Your task to perform on an android device: toggle pop-ups in chrome Image 0: 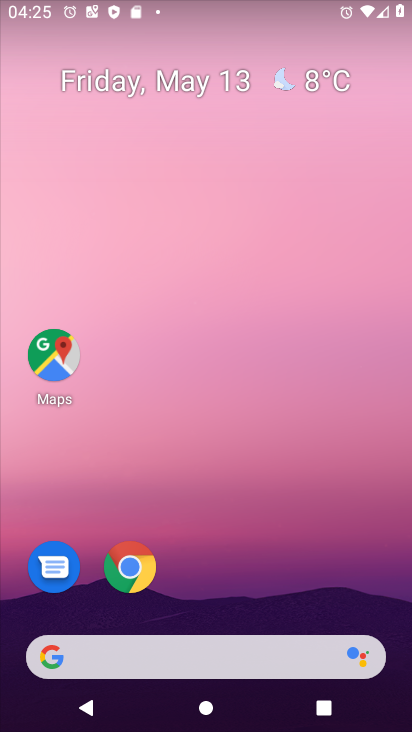
Step 0: click (134, 568)
Your task to perform on an android device: toggle pop-ups in chrome Image 1: 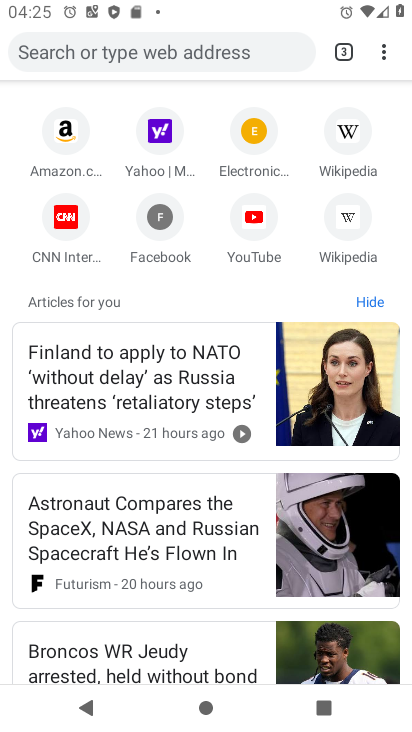
Step 1: click (383, 54)
Your task to perform on an android device: toggle pop-ups in chrome Image 2: 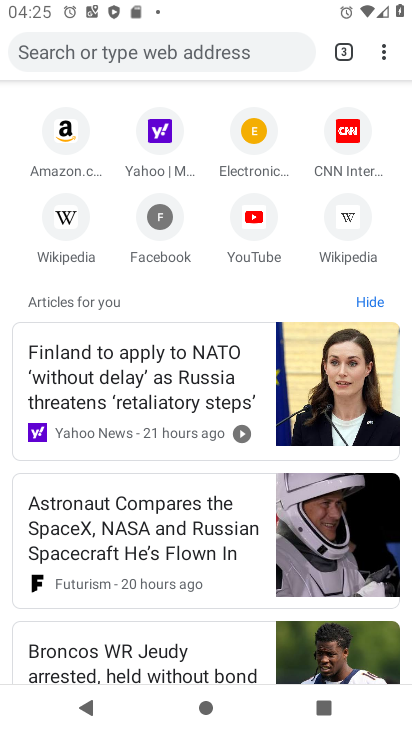
Step 2: drag from (383, 54) to (254, 430)
Your task to perform on an android device: toggle pop-ups in chrome Image 3: 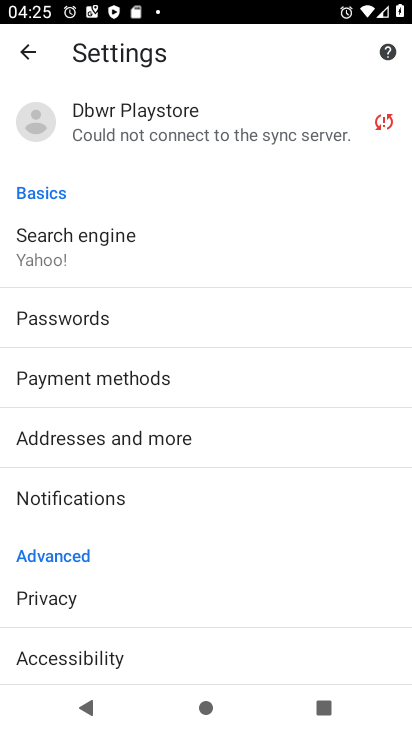
Step 3: drag from (149, 583) to (138, 313)
Your task to perform on an android device: toggle pop-ups in chrome Image 4: 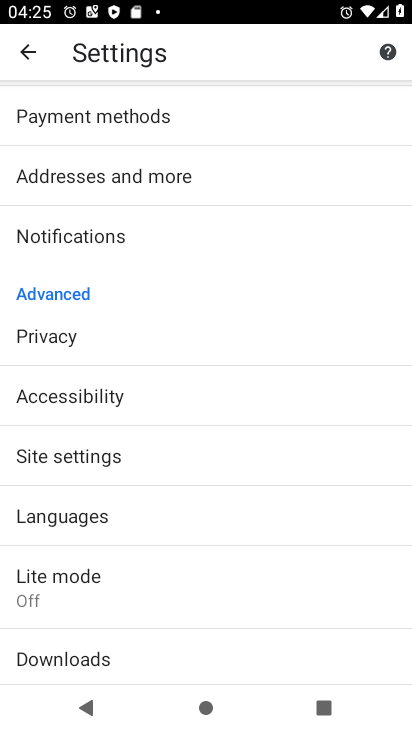
Step 4: click (70, 458)
Your task to perform on an android device: toggle pop-ups in chrome Image 5: 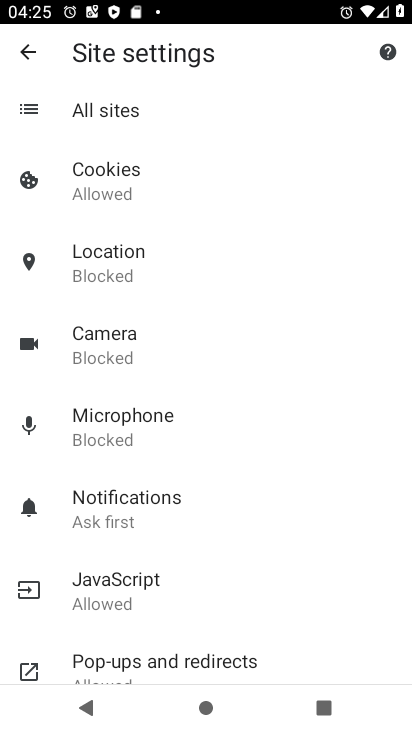
Step 5: drag from (222, 598) to (239, 502)
Your task to perform on an android device: toggle pop-ups in chrome Image 6: 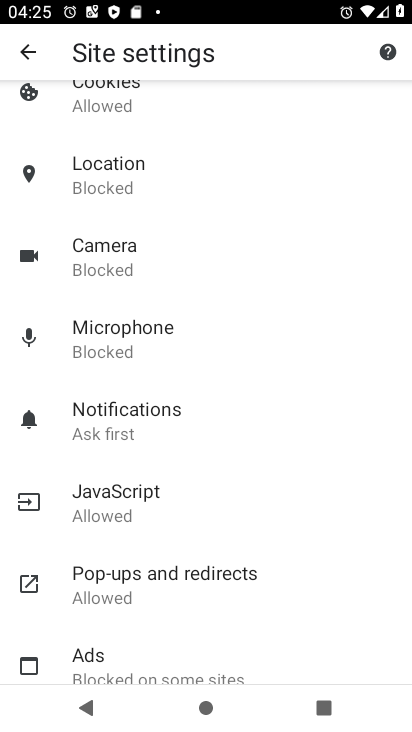
Step 6: click (138, 582)
Your task to perform on an android device: toggle pop-ups in chrome Image 7: 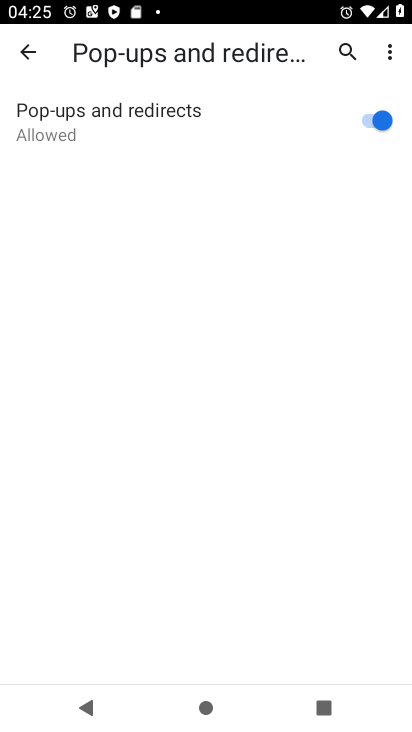
Step 7: click (398, 111)
Your task to perform on an android device: toggle pop-ups in chrome Image 8: 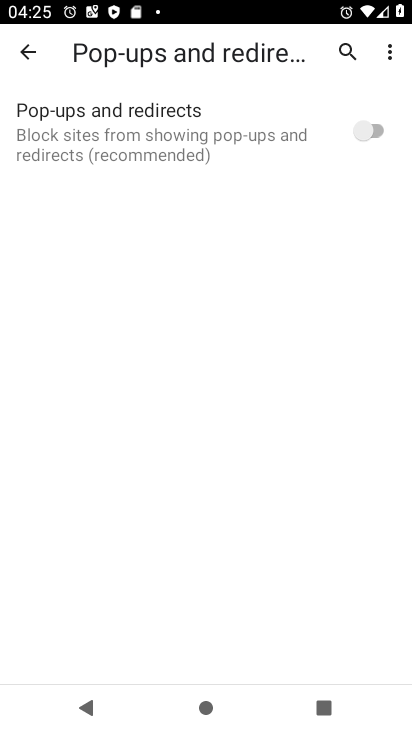
Step 8: task complete